Your task to perform on an android device: turn off improve location accuracy Image 0: 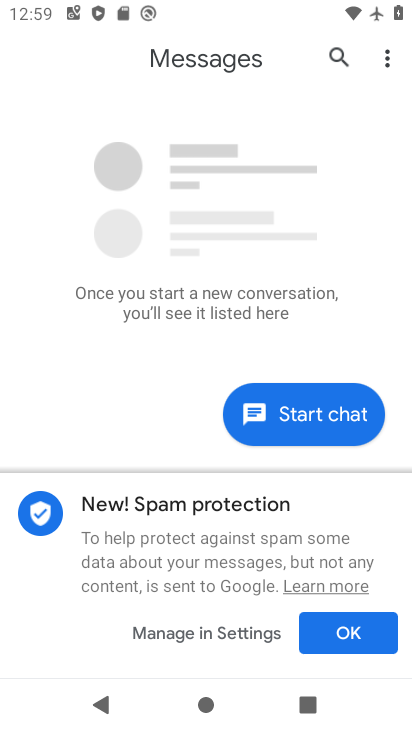
Step 0: press home button
Your task to perform on an android device: turn off improve location accuracy Image 1: 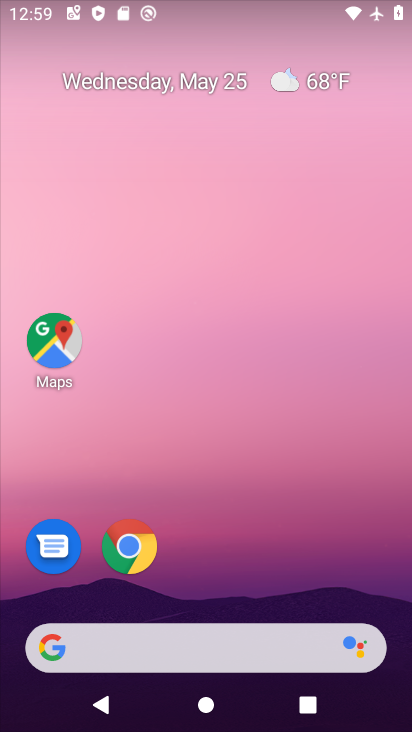
Step 1: drag from (212, 601) to (172, 101)
Your task to perform on an android device: turn off improve location accuracy Image 2: 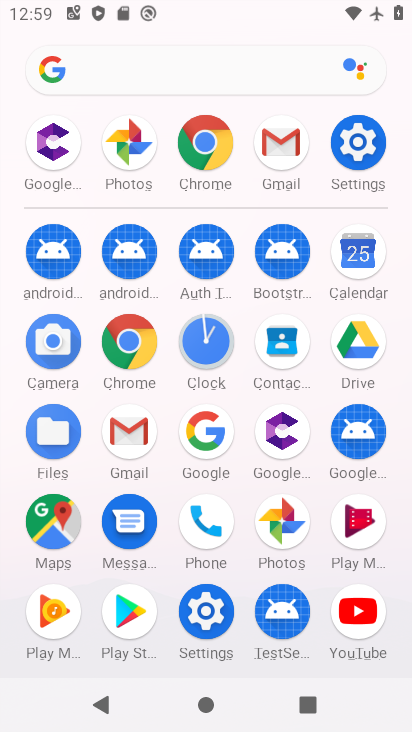
Step 2: click (375, 155)
Your task to perform on an android device: turn off improve location accuracy Image 3: 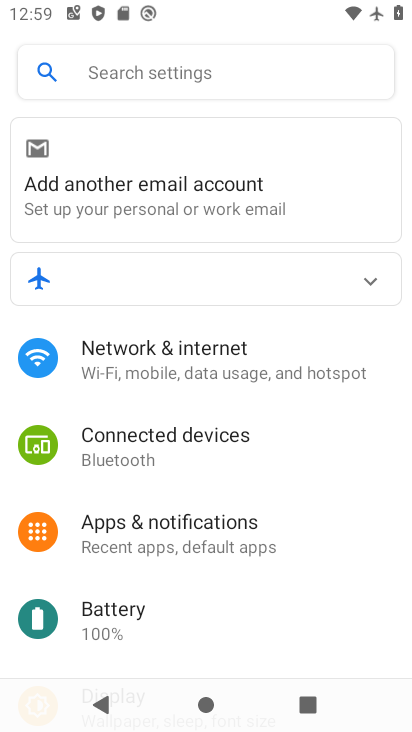
Step 3: task complete